Your task to perform on an android device: turn notification dots on Image 0: 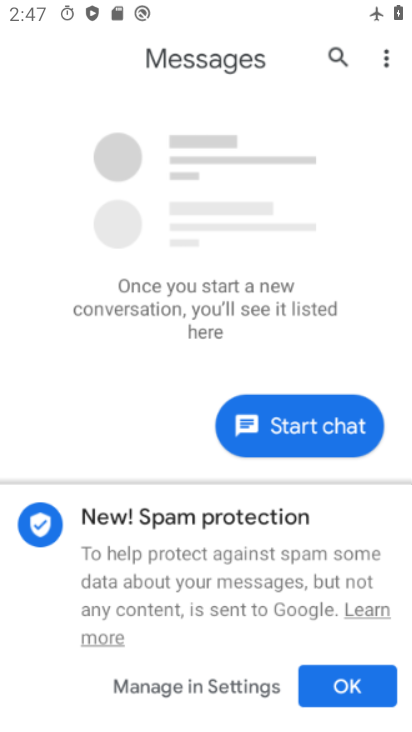
Step 0: drag from (243, 458) to (221, 53)
Your task to perform on an android device: turn notification dots on Image 1: 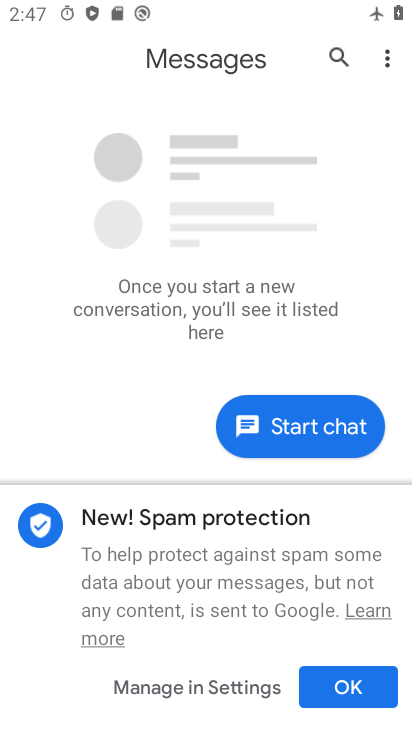
Step 1: press back button
Your task to perform on an android device: turn notification dots on Image 2: 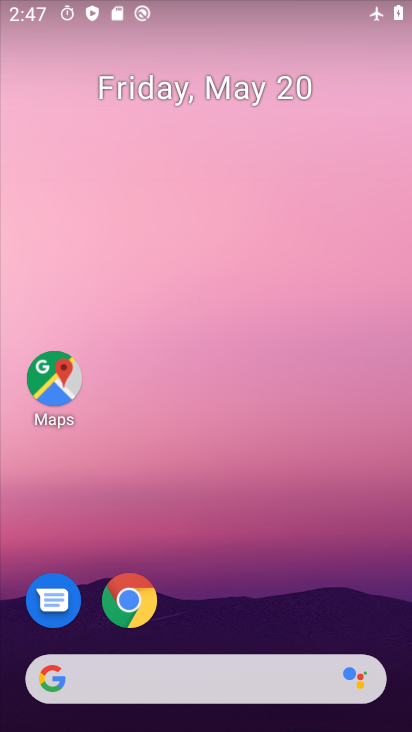
Step 2: drag from (246, 540) to (151, 60)
Your task to perform on an android device: turn notification dots on Image 3: 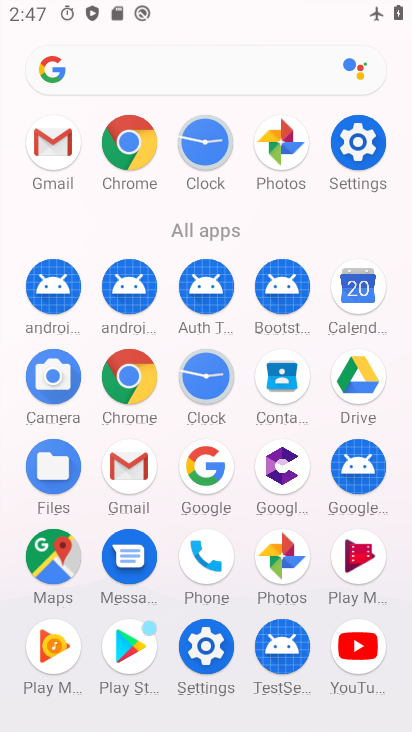
Step 3: drag from (16, 526) to (11, 234)
Your task to perform on an android device: turn notification dots on Image 4: 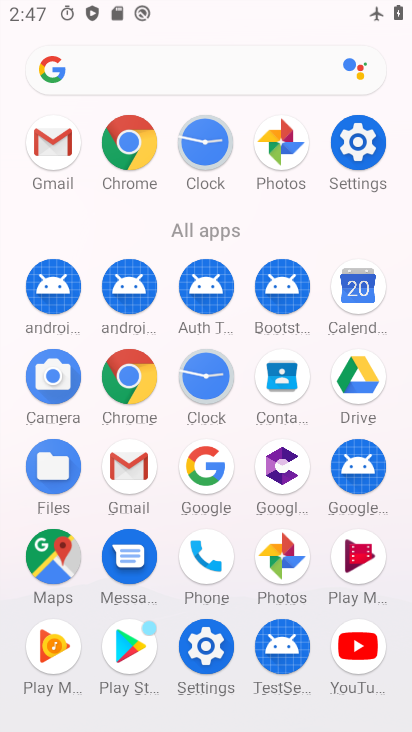
Step 4: drag from (9, 583) to (32, 278)
Your task to perform on an android device: turn notification dots on Image 5: 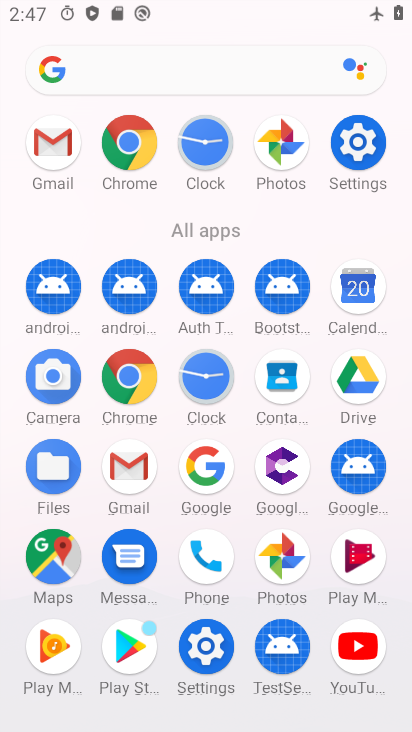
Step 5: click (204, 646)
Your task to perform on an android device: turn notification dots on Image 6: 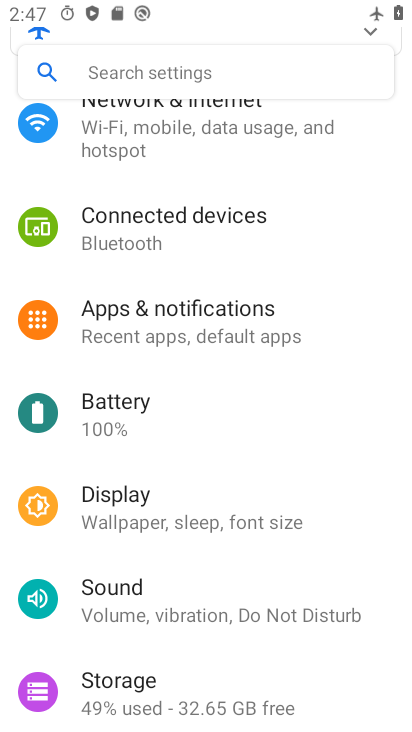
Step 6: click (226, 323)
Your task to perform on an android device: turn notification dots on Image 7: 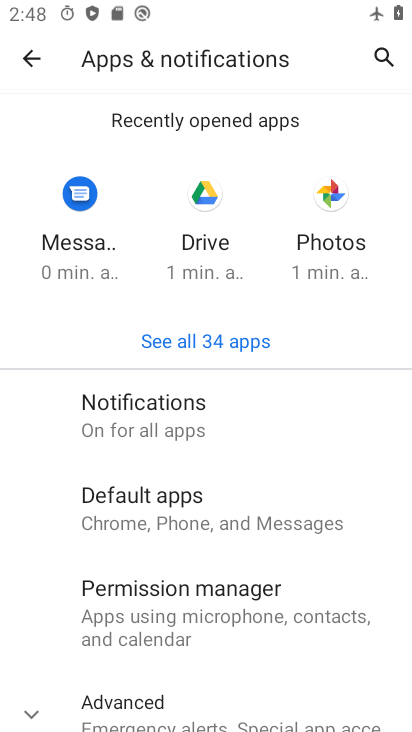
Step 7: click (35, 709)
Your task to perform on an android device: turn notification dots on Image 8: 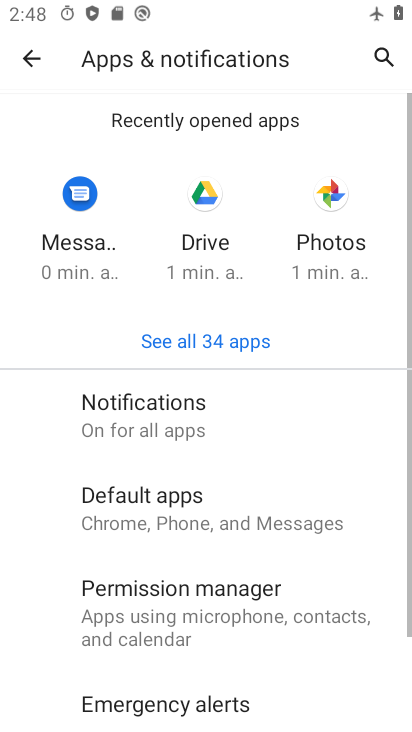
Step 8: drag from (263, 606) to (291, 302)
Your task to perform on an android device: turn notification dots on Image 9: 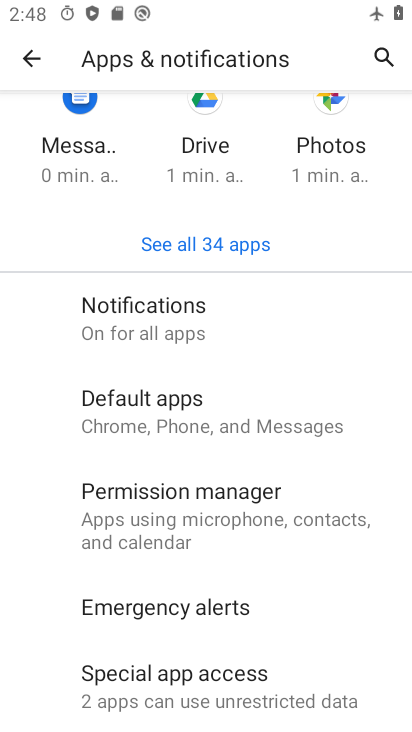
Step 9: click (213, 319)
Your task to perform on an android device: turn notification dots on Image 10: 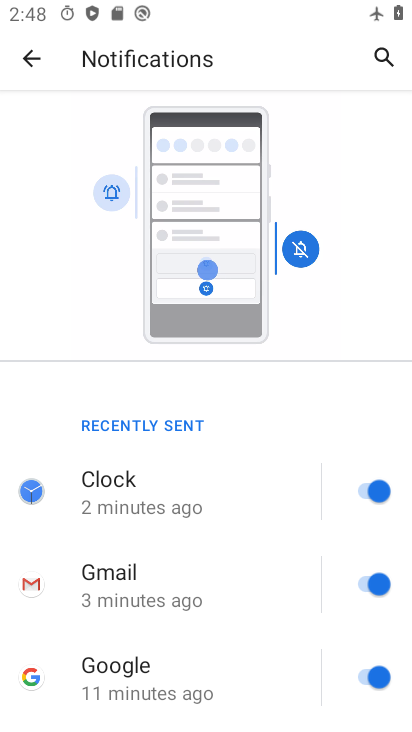
Step 10: drag from (157, 576) to (243, 190)
Your task to perform on an android device: turn notification dots on Image 11: 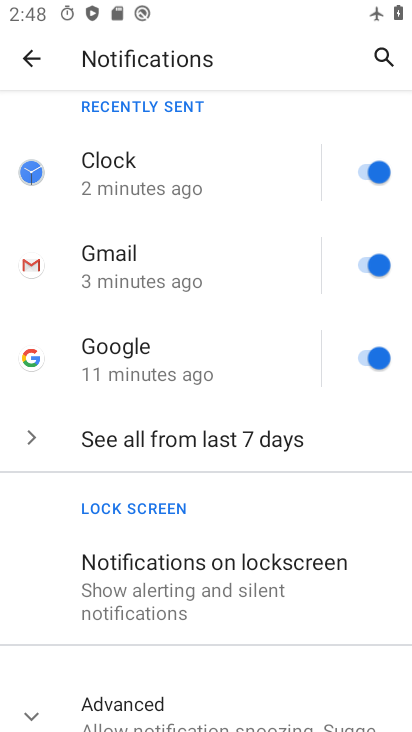
Step 11: drag from (218, 639) to (217, 187)
Your task to perform on an android device: turn notification dots on Image 12: 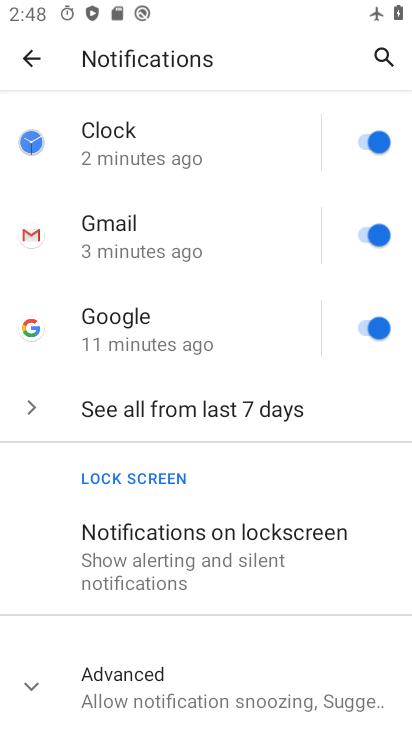
Step 12: click (46, 679)
Your task to perform on an android device: turn notification dots on Image 13: 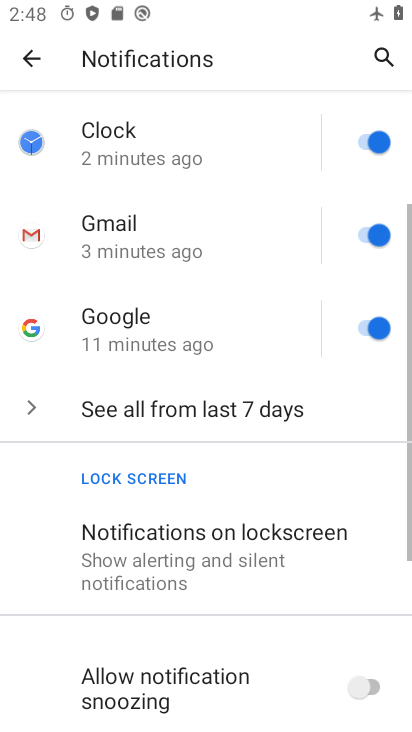
Step 13: task complete